Your task to perform on an android device: Open ESPN.com Image 0: 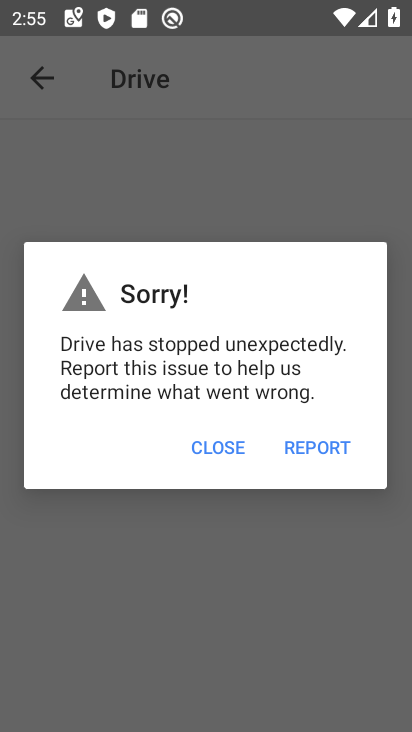
Step 0: press home button
Your task to perform on an android device: Open ESPN.com Image 1: 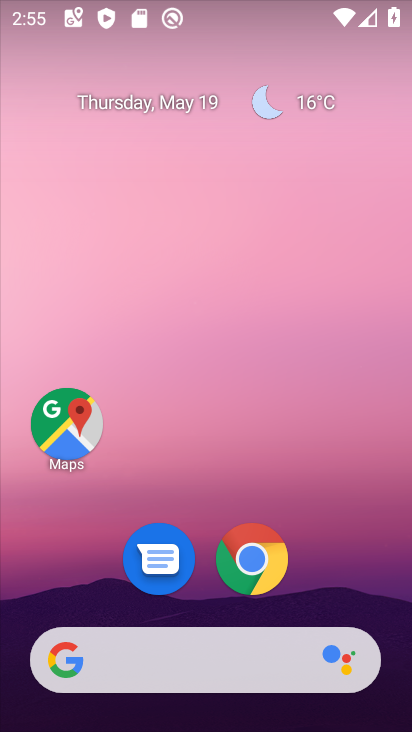
Step 1: click (266, 566)
Your task to perform on an android device: Open ESPN.com Image 2: 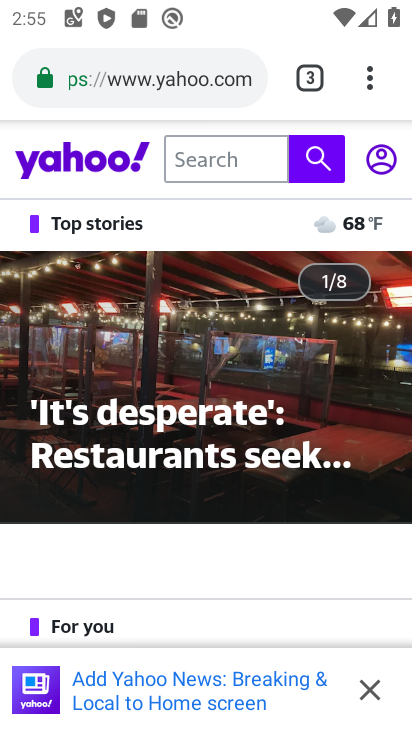
Step 2: click (323, 83)
Your task to perform on an android device: Open ESPN.com Image 3: 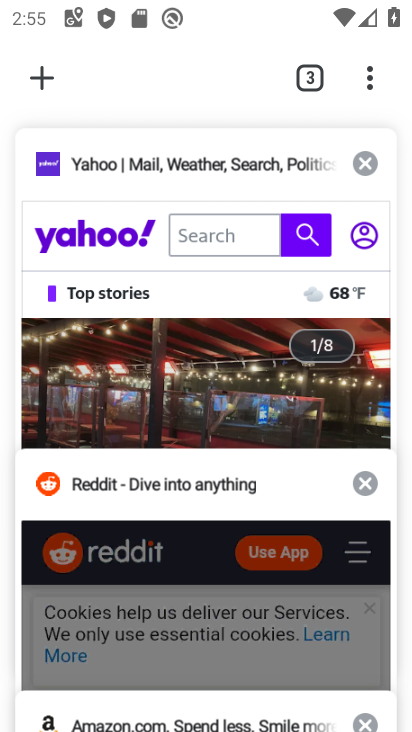
Step 3: click (34, 75)
Your task to perform on an android device: Open ESPN.com Image 4: 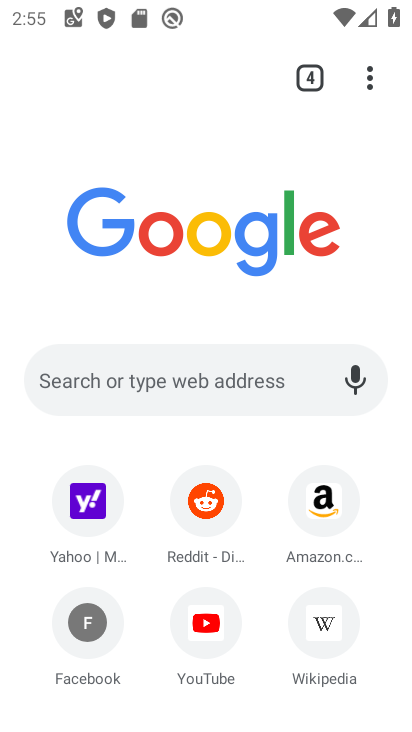
Step 4: click (195, 372)
Your task to perform on an android device: Open ESPN.com Image 5: 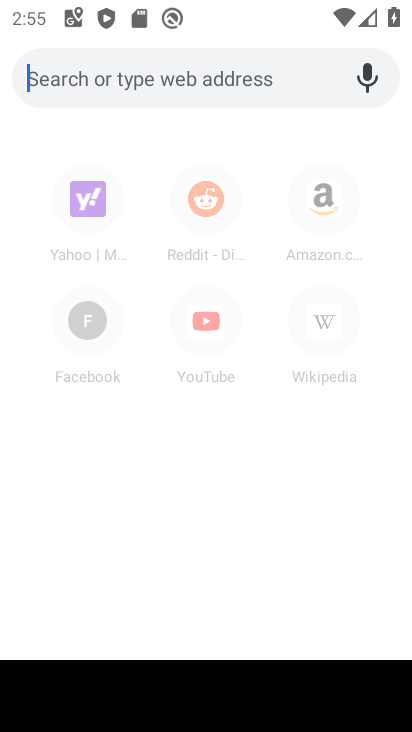
Step 5: type "ESPN.com"
Your task to perform on an android device: Open ESPN.com Image 6: 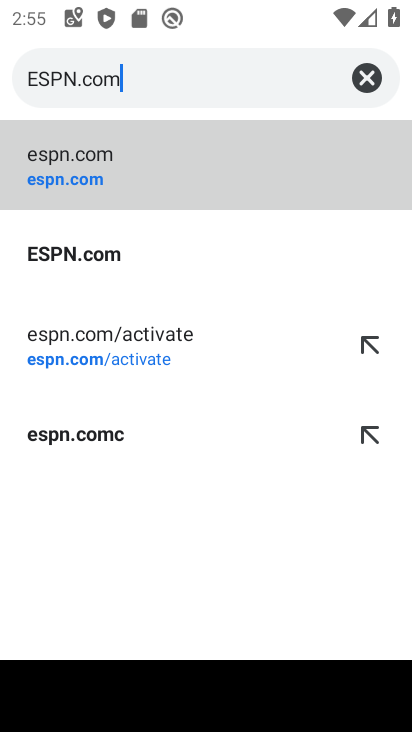
Step 6: click (150, 168)
Your task to perform on an android device: Open ESPN.com Image 7: 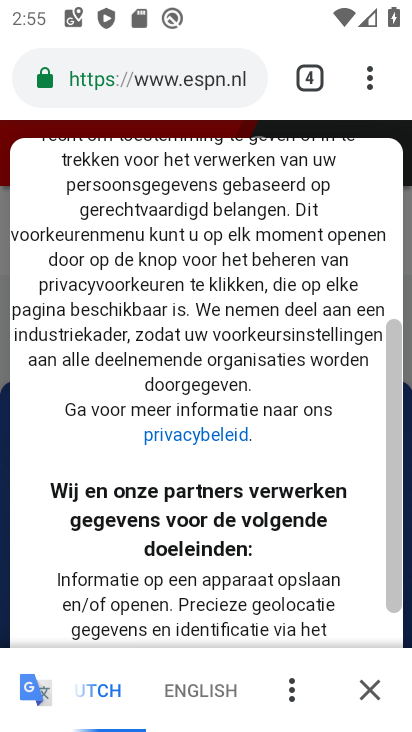
Step 7: task complete